Your task to perform on an android device: Go to privacy settings Image 0: 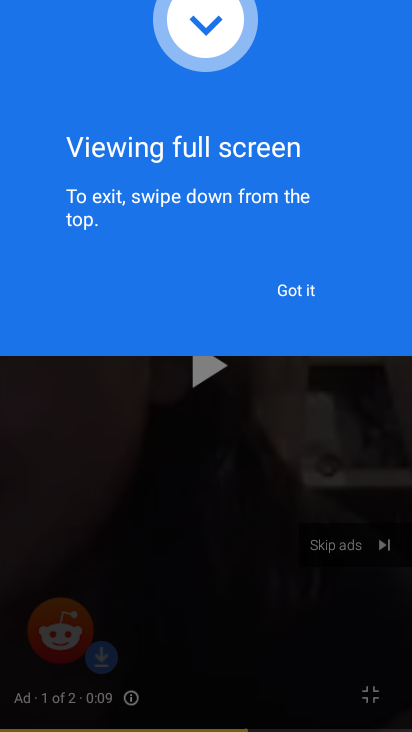
Step 0: press home button
Your task to perform on an android device: Go to privacy settings Image 1: 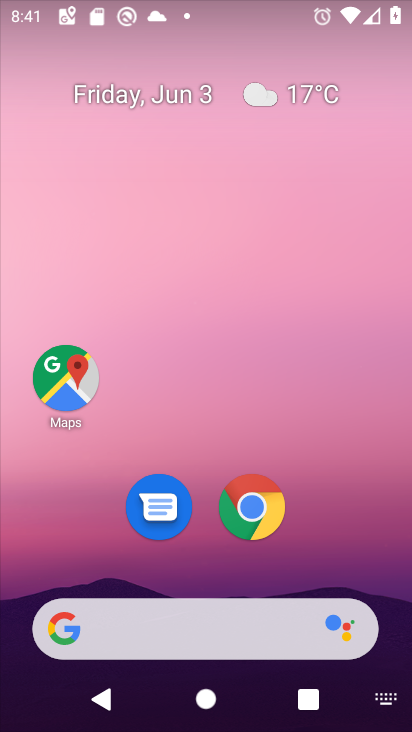
Step 1: drag from (363, 498) to (274, 0)
Your task to perform on an android device: Go to privacy settings Image 2: 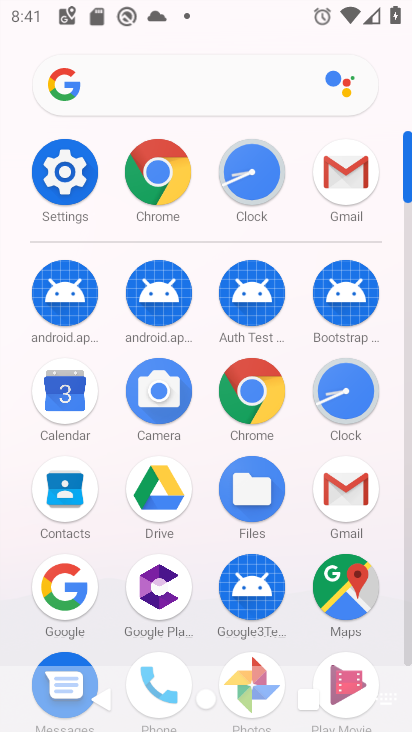
Step 2: click (86, 168)
Your task to perform on an android device: Go to privacy settings Image 3: 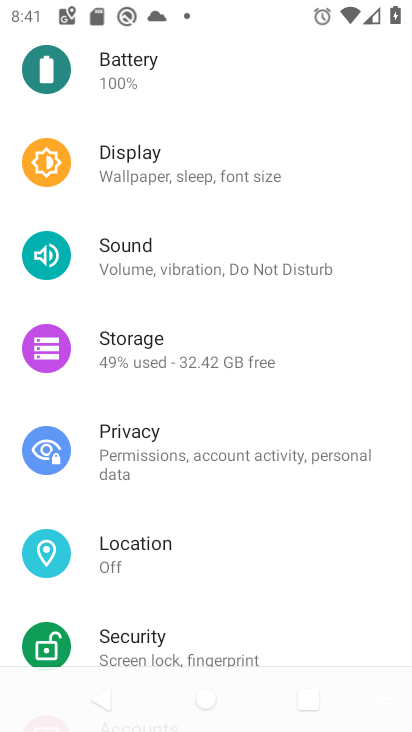
Step 3: click (205, 450)
Your task to perform on an android device: Go to privacy settings Image 4: 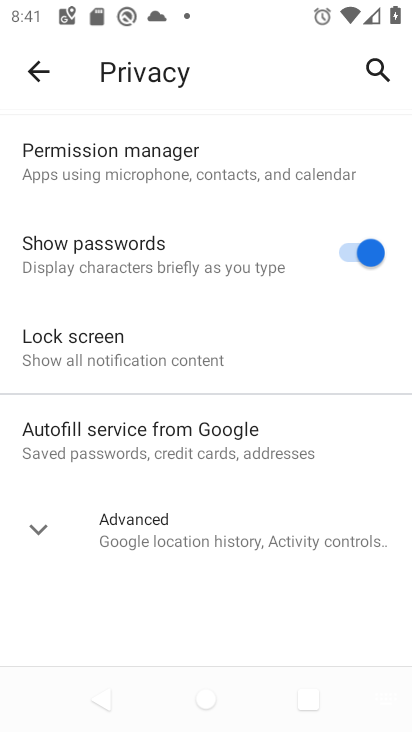
Step 4: task complete